Your task to perform on an android device: Open calendar and show me the second week of next month Image 0: 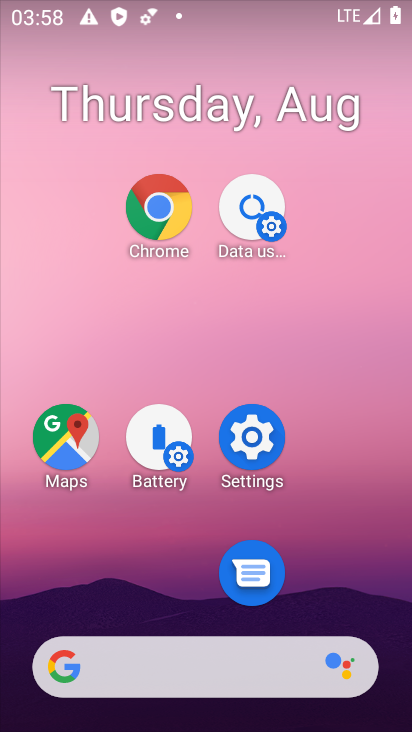
Step 0: drag from (214, 648) to (197, 245)
Your task to perform on an android device: Open calendar and show me the second week of next month Image 1: 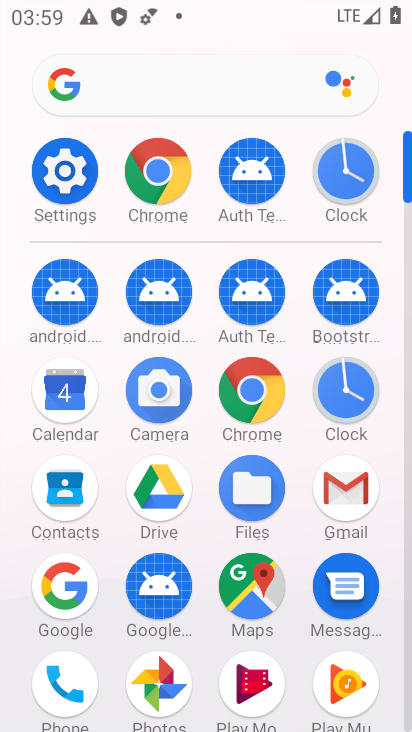
Step 1: click (62, 389)
Your task to perform on an android device: Open calendar and show me the second week of next month Image 2: 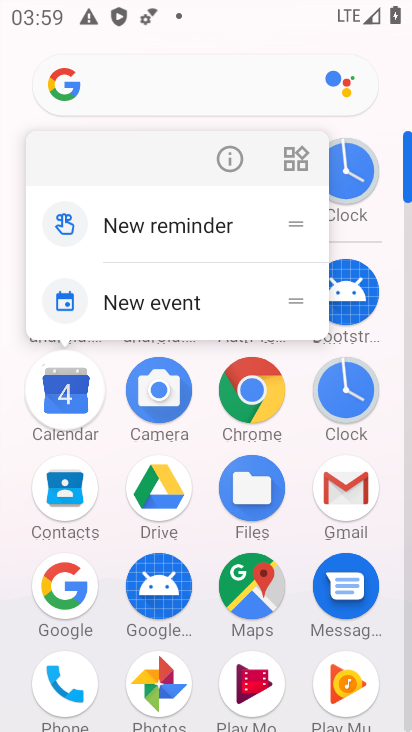
Step 2: click (62, 389)
Your task to perform on an android device: Open calendar and show me the second week of next month Image 3: 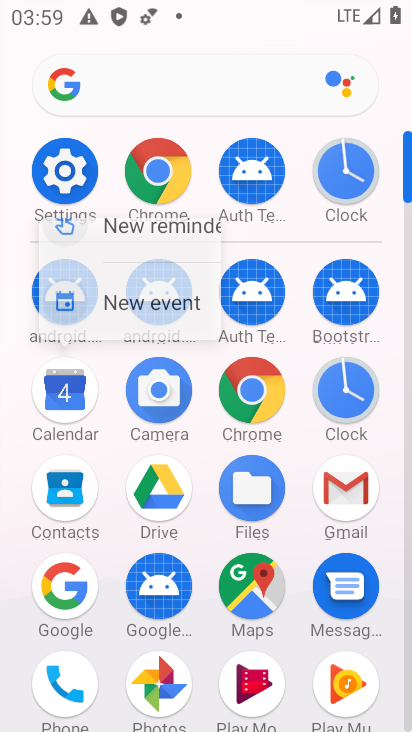
Step 3: click (62, 389)
Your task to perform on an android device: Open calendar and show me the second week of next month Image 4: 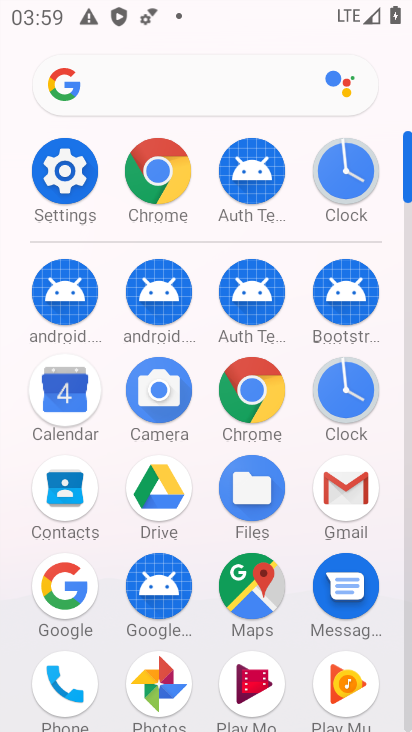
Step 4: click (62, 389)
Your task to perform on an android device: Open calendar and show me the second week of next month Image 5: 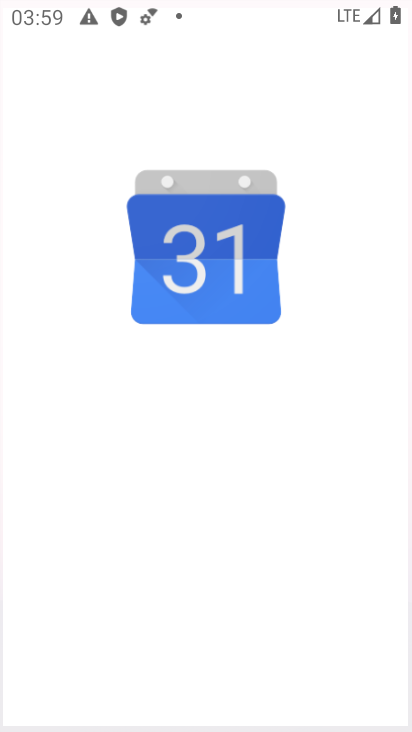
Step 5: click (62, 389)
Your task to perform on an android device: Open calendar and show me the second week of next month Image 6: 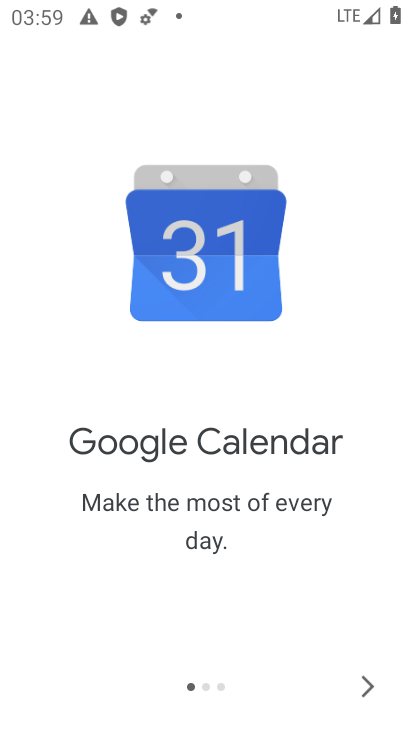
Step 6: click (356, 684)
Your task to perform on an android device: Open calendar and show me the second week of next month Image 7: 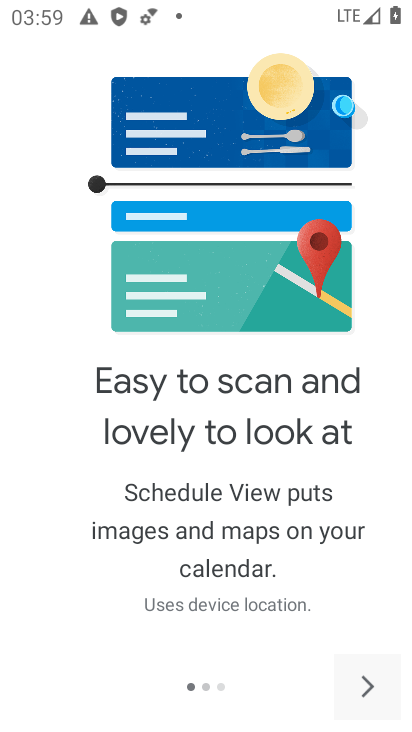
Step 7: click (358, 683)
Your task to perform on an android device: Open calendar and show me the second week of next month Image 8: 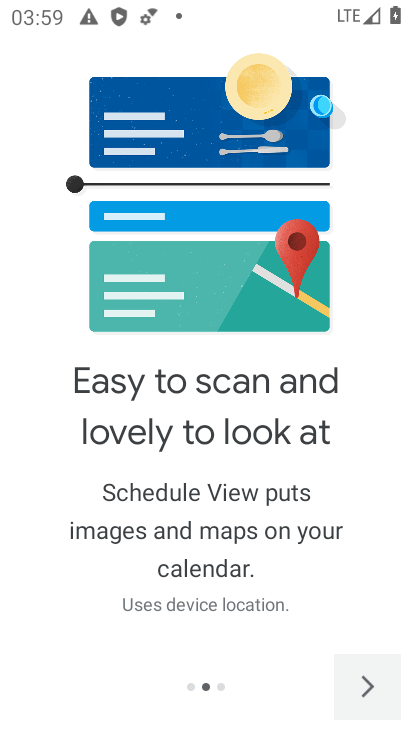
Step 8: click (360, 683)
Your task to perform on an android device: Open calendar and show me the second week of next month Image 9: 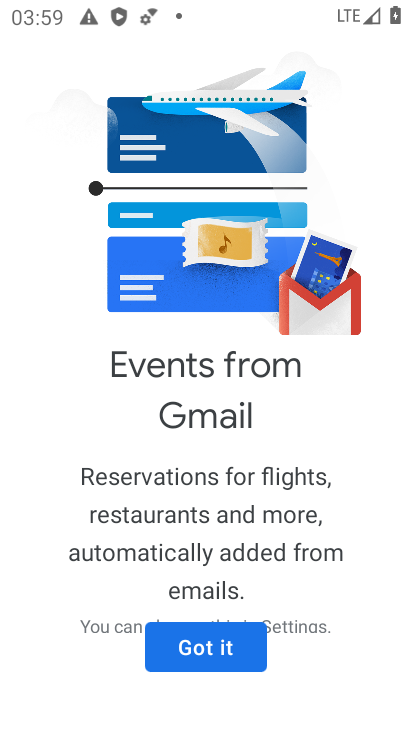
Step 9: click (223, 638)
Your task to perform on an android device: Open calendar and show me the second week of next month Image 10: 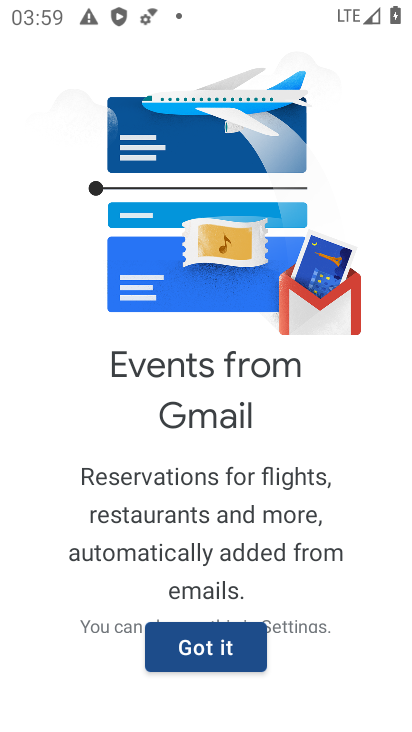
Step 10: click (224, 638)
Your task to perform on an android device: Open calendar and show me the second week of next month Image 11: 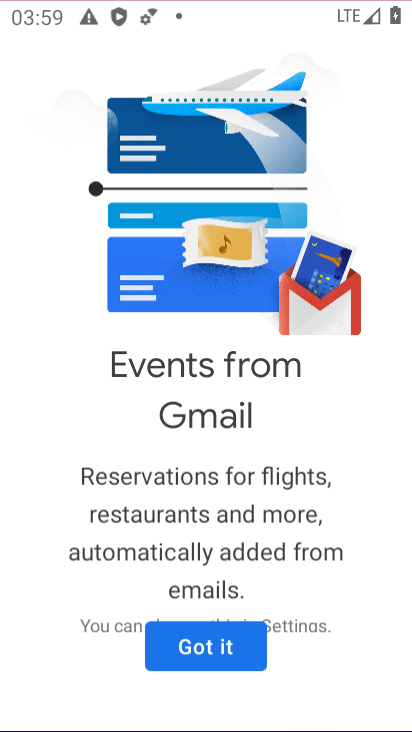
Step 11: click (224, 638)
Your task to perform on an android device: Open calendar and show me the second week of next month Image 12: 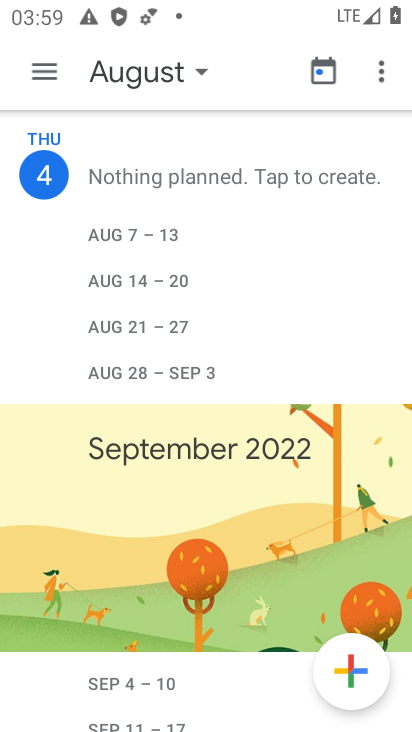
Step 12: click (380, 68)
Your task to perform on an android device: Open calendar and show me the second week of next month Image 13: 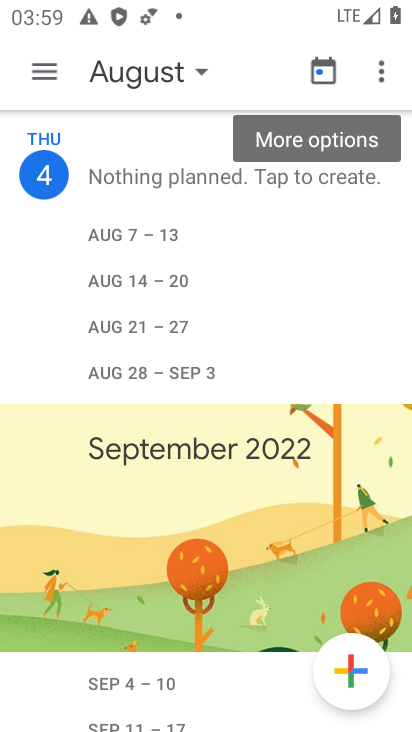
Step 13: click (199, 65)
Your task to perform on an android device: Open calendar and show me the second week of next month Image 14: 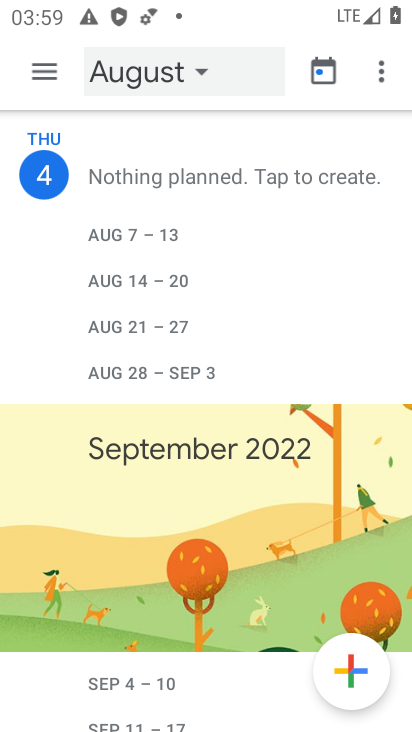
Step 14: click (199, 66)
Your task to perform on an android device: Open calendar and show me the second week of next month Image 15: 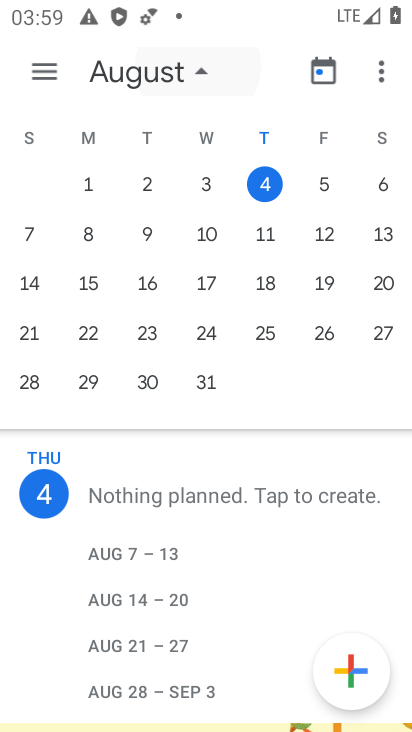
Step 15: click (192, 79)
Your task to perform on an android device: Open calendar and show me the second week of next month Image 16: 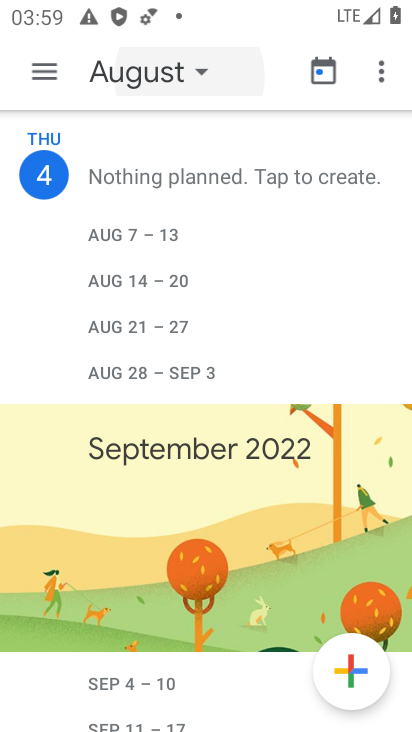
Step 16: click (193, 72)
Your task to perform on an android device: Open calendar and show me the second week of next month Image 17: 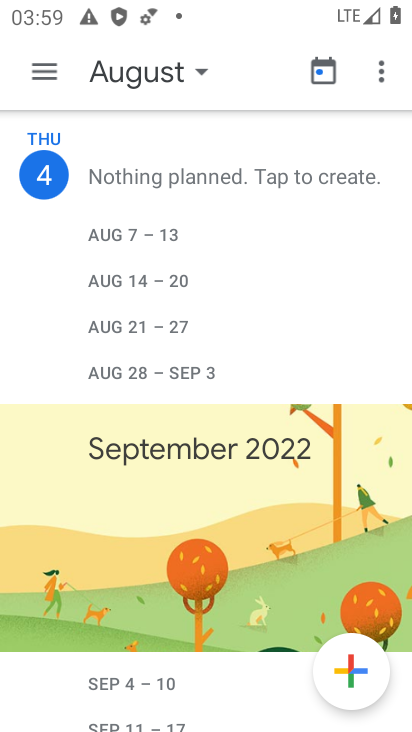
Step 17: click (198, 72)
Your task to perform on an android device: Open calendar and show me the second week of next month Image 18: 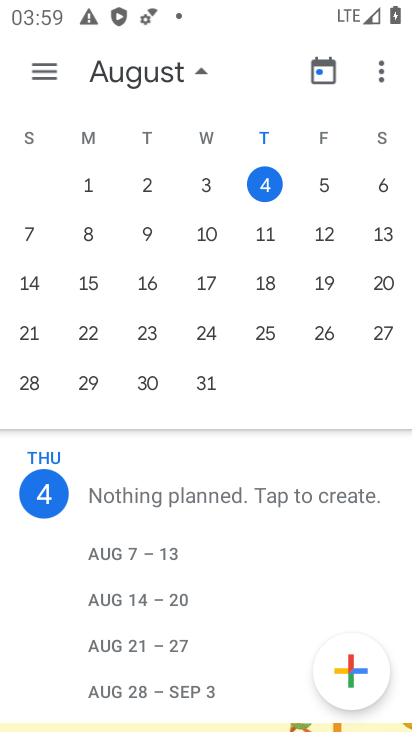
Step 18: drag from (331, 254) to (17, 238)
Your task to perform on an android device: Open calendar and show me the second week of next month Image 19: 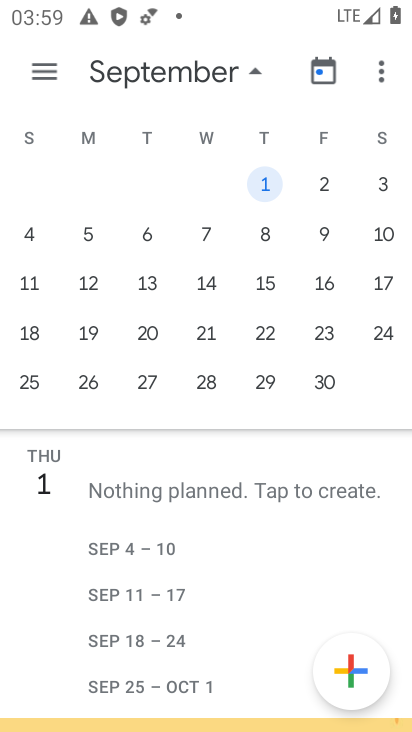
Step 19: click (258, 225)
Your task to perform on an android device: Open calendar and show me the second week of next month Image 20: 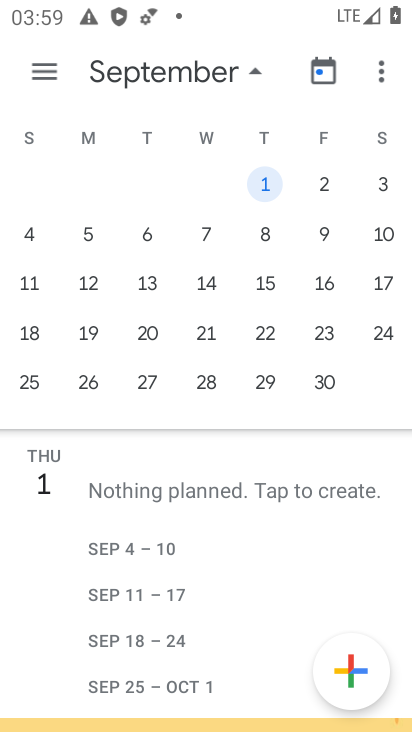
Step 20: click (259, 226)
Your task to perform on an android device: Open calendar and show me the second week of next month Image 21: 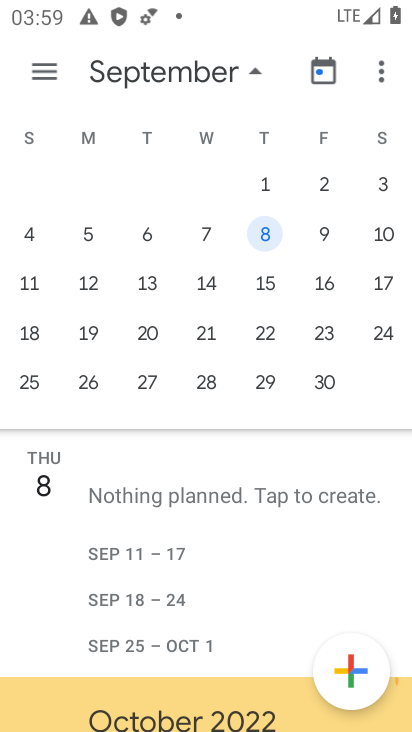
Step 21: task complete